Your task to perform on an android device: Find coffee shops on Maps Image 0: 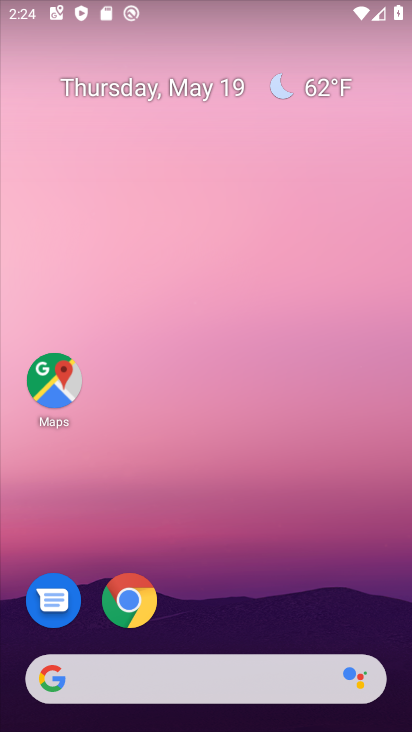
Step 0: click (48, 367)
Your task to perform on an android device: Find coffee shops on Maps Image 1: 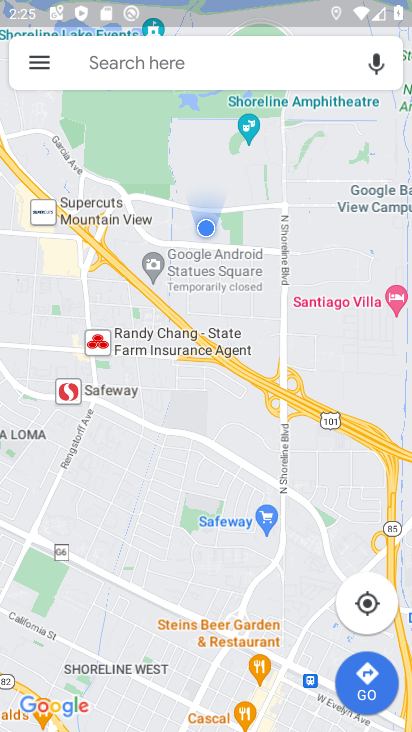
Step 1: click (114, 70)
Your task to perform on an android device: Find coffee shops on Maps Image 2: 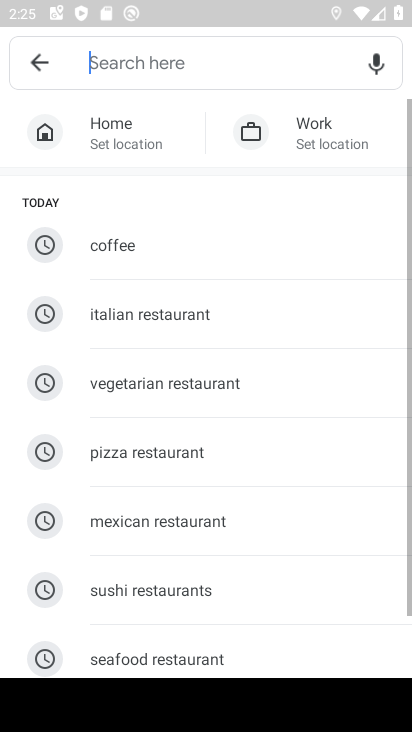
Step 2: click (169, 250)
Your task to perform on an android device: Find coffee shops on Maps Image 3: 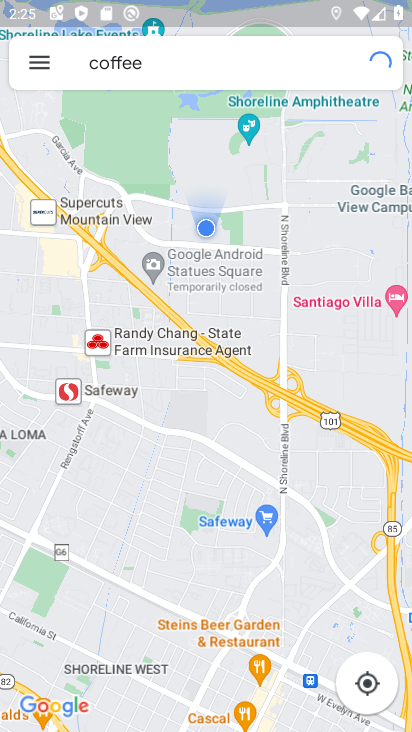
Step 3: task complete